Your task to perform on an android device: What's the weather going to be tomorrow? Image 0: 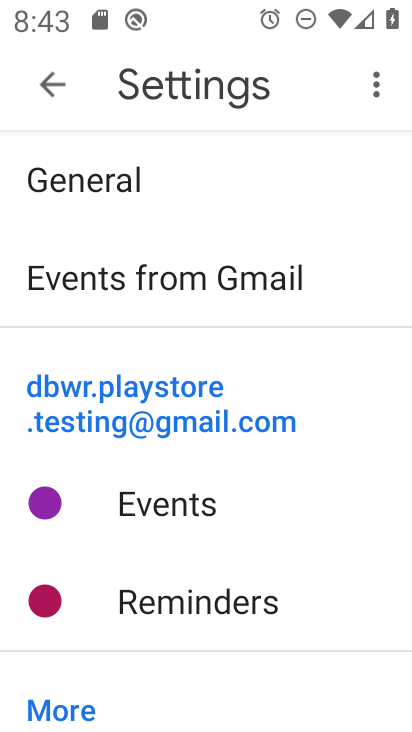
Step 0: press home button
Your task to perform on an android device: What's the weather going to be tomorrow? Image 1: 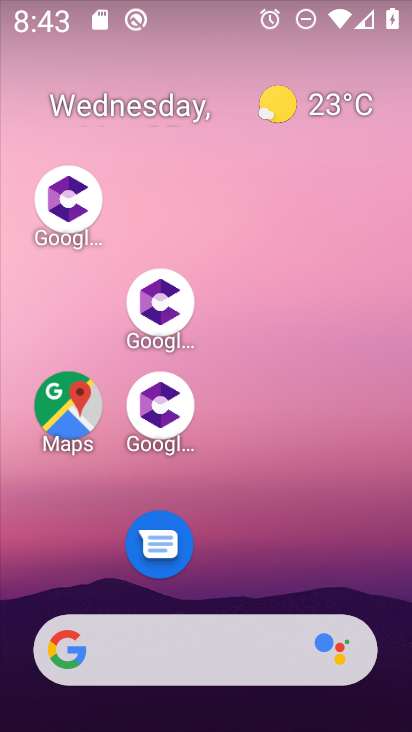
Step 1: click (197, 642)
Your task to perform on an android device: What's the weather going to be tomorrow? Image 2: 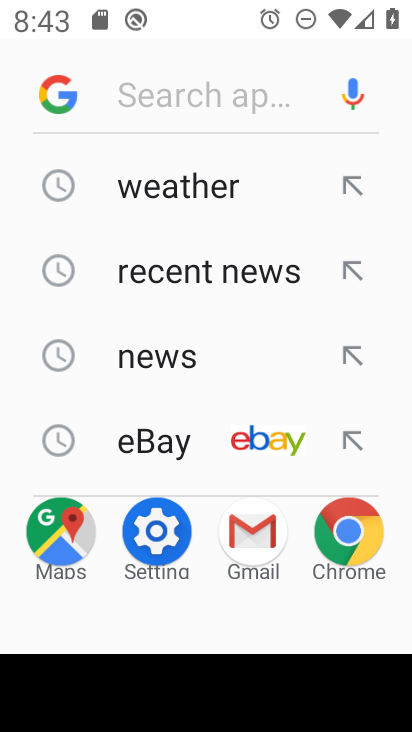
Step 2: click (170, 181)
Your task to perform on an android device: What's the weather going to be tomorrow? Image 3: 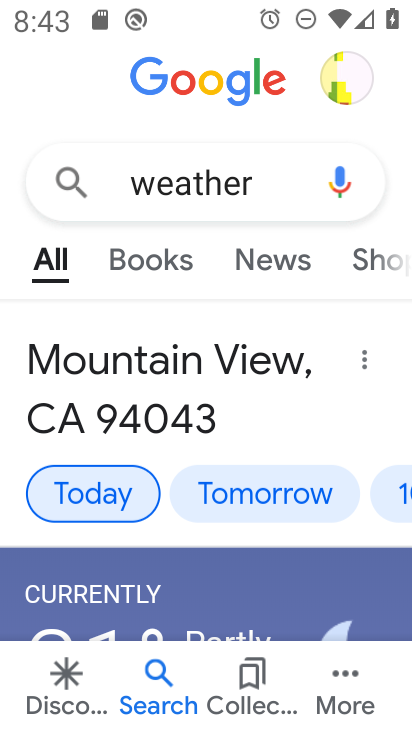
Step 3: task complete